Your task to perform on an android device: Open Youtube and go to "Your channel" Image 0: 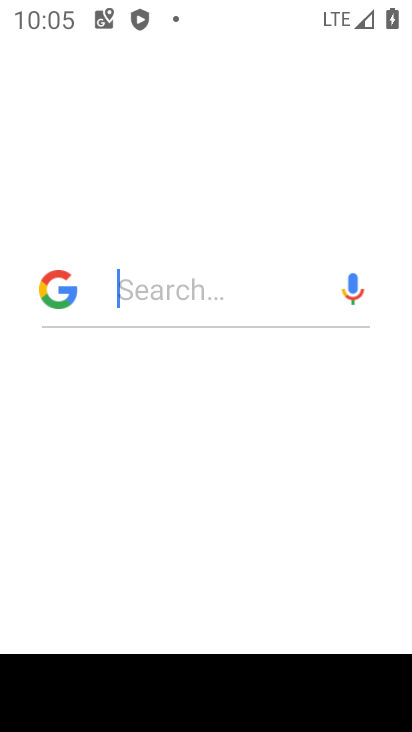
Step 0: drag from (314, 612) to (306, 274)
Your task to perform on an android device: Open Youtube and go to "Your channel" Image 1: 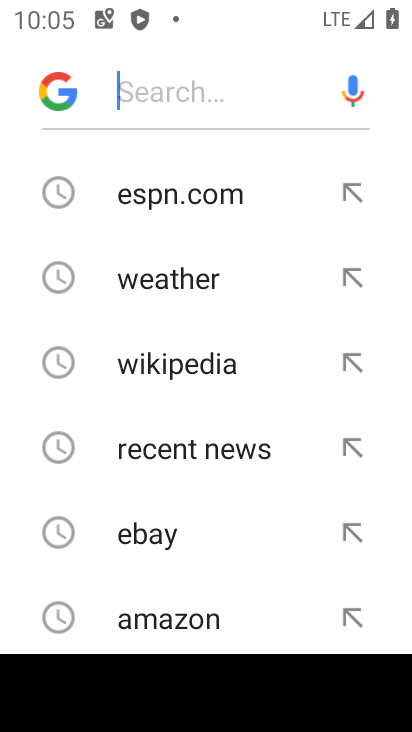
Step 1: press home button
Your task to perform on an android device: Open Youtube and go to "Your channel" Image 2: 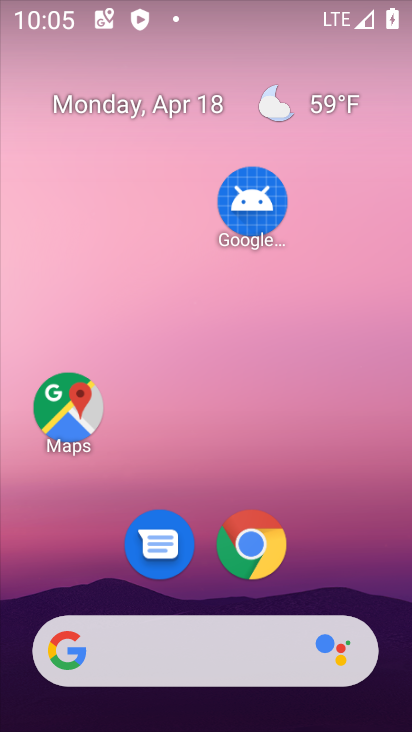
Step 2: drag from (327, 340) to (318, 198)
Your task to perform on an android device: Open Youtube and go to "Your channel" Image 3: 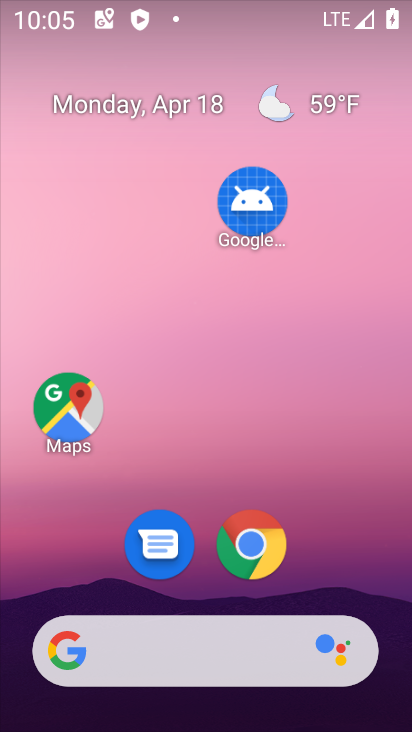
Step 3: drag from (368, 581) to (379, 202)
Your task to perform on an android device: Open Youtube and go to "Your channel" Image 4: 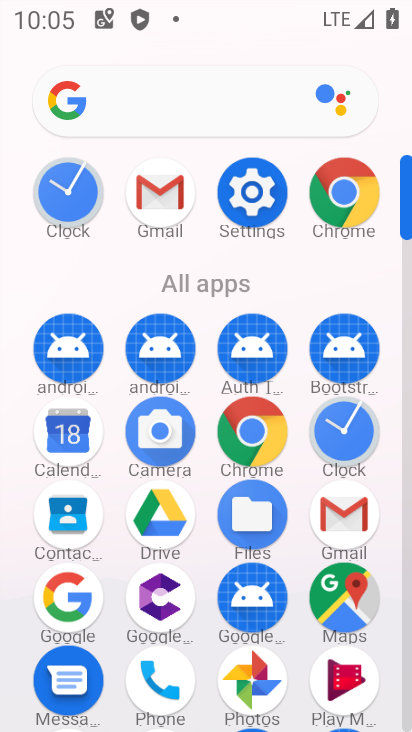
Step 4: drag from (306, 616) to (315, 202)
Your task to perform on an android device: Open Youtube and go to "Your channel" Image 5: 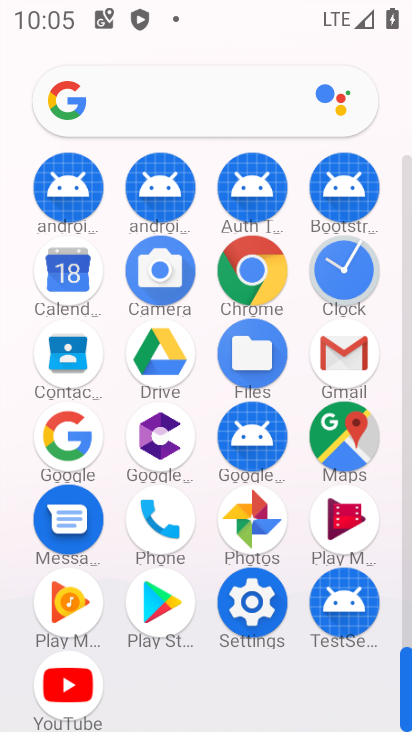
Step 5: click (84, 670)
Your task to perform on an android device: Open Youtube and go to "Your channel" Image 6: 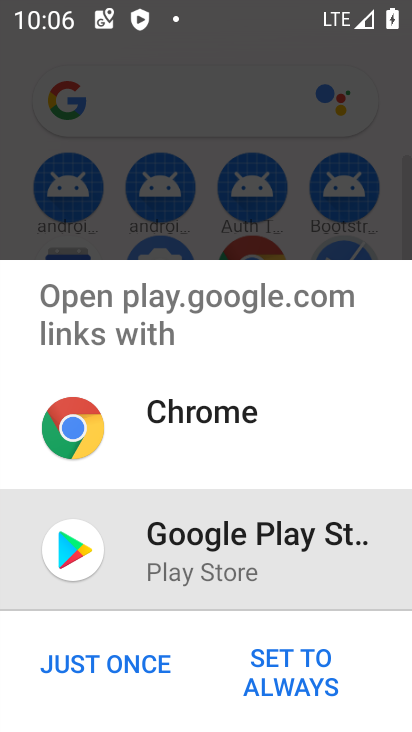
Step 6: click (274, 686)
Your task to perform on an android device: Open Youtube and go to "Your channel" Image 7: 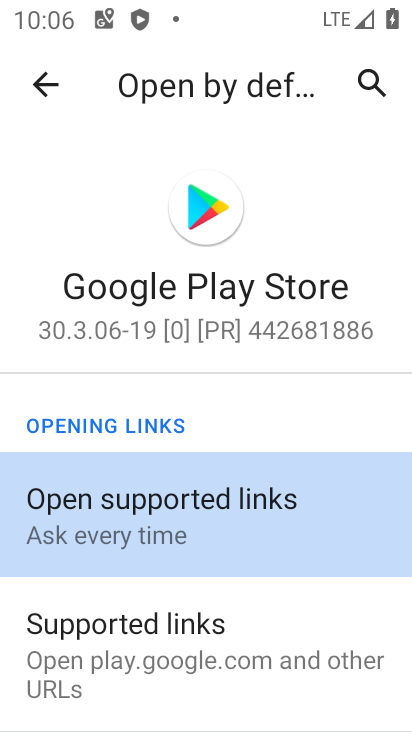
Step 7: click (225, 537)
Your task to perform on an android device: Open Youtube and go to "Your channel" Image 8: 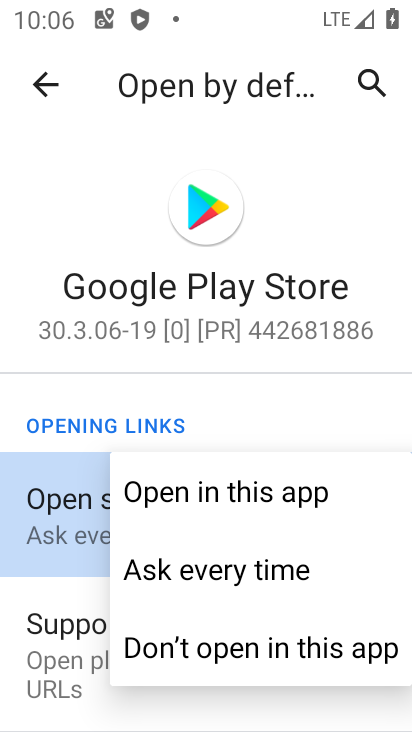
Step 8: press home button
Your task to perform on an android device: Open Youtube and go to "Your channel" Image 9: 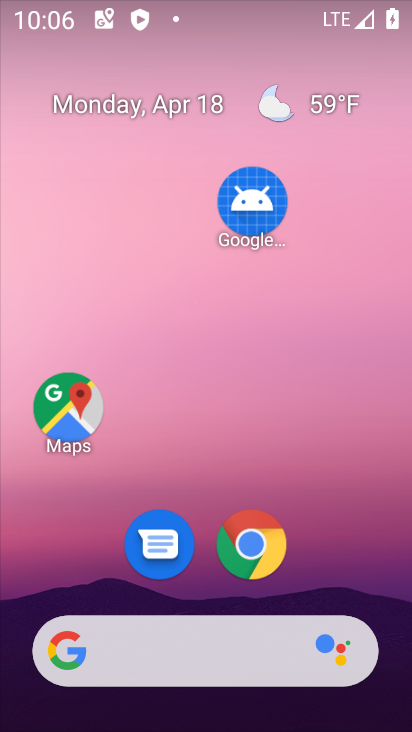
Step 9: click (210, 380)
Your task to perform on an android device: Open Youtube and go to "Your channel" Image 10: 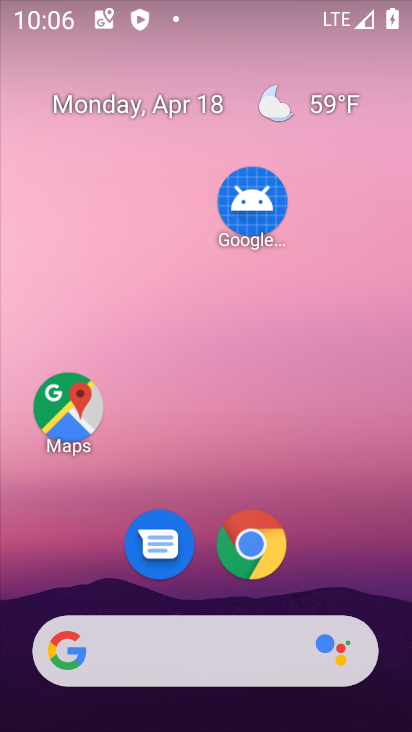
Step 10: drag from (218, 613) to (215, 341)
Your task to perform on an android device: Open Youtube and go to "Your channel" Image 11: 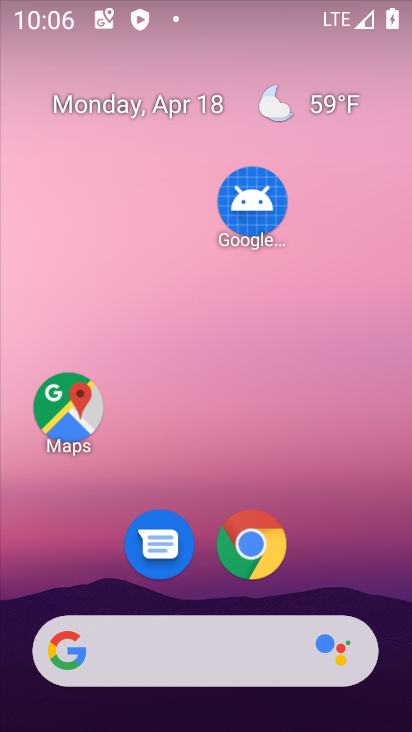
Step 11: drag from (286, 404) to (284, 151)
Your task to perform on an android device: Open Youtube and go to "Your channel" Image 12: 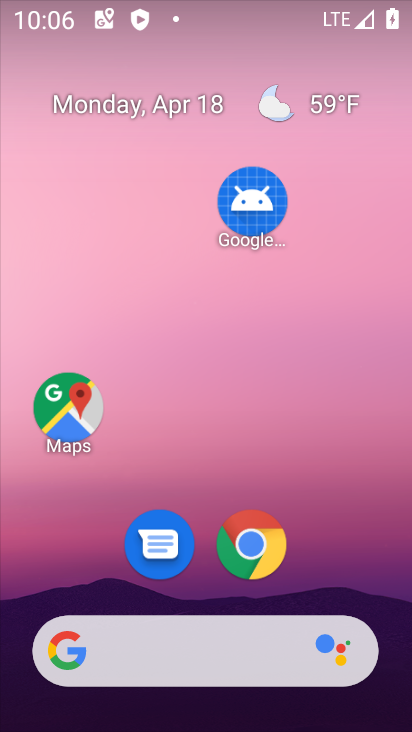
Step 12: drag from (316, 603) to (339, 32)
Your task to perform on an android device: Open Youtube and go to "Your channel" Image 13: 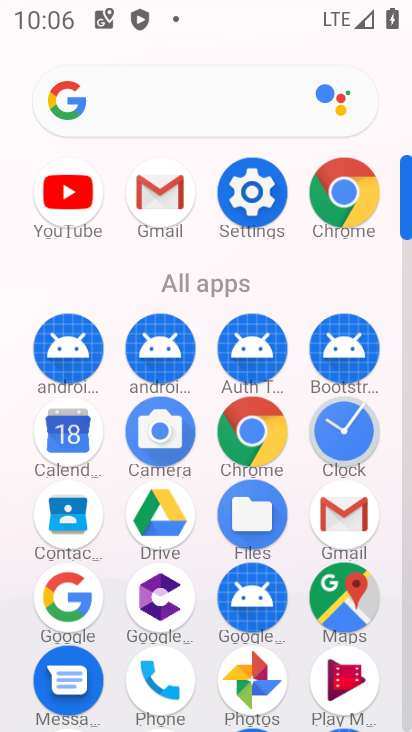
Step 13: click (65, 178)
Your task to perform on an android device: Open Youtube and go to "Your channel" Image 14: 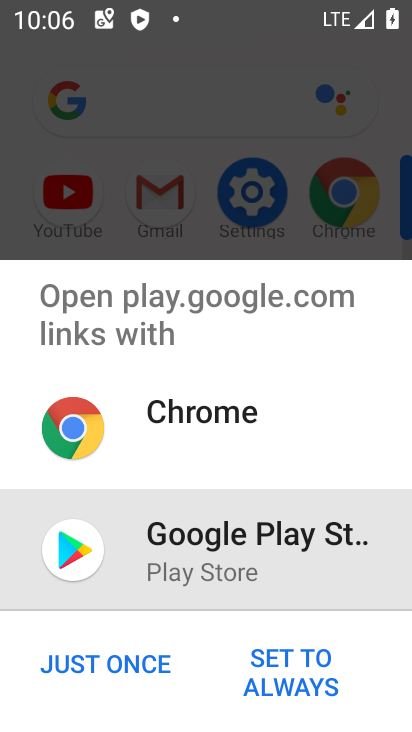
Step 14: click (134, 659)
Your task to perform on an android device: Open Youtube and go to "Your channel" Image 15: 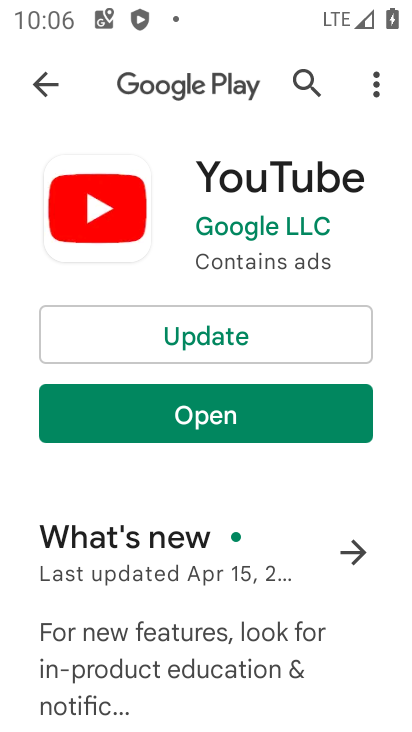
Step 15: click (230, 405)
Your task to perform on an android device: Open Youtube and go to "Your channel" Image 16: 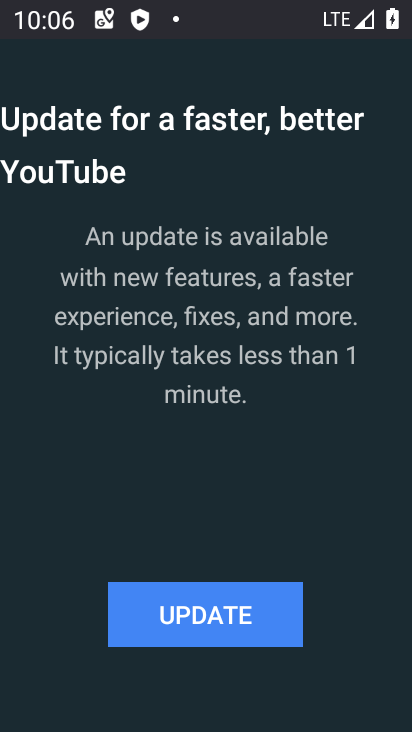
Step 16: task complete